Your task to perform on an android device: Go to privacy settings Image 0: 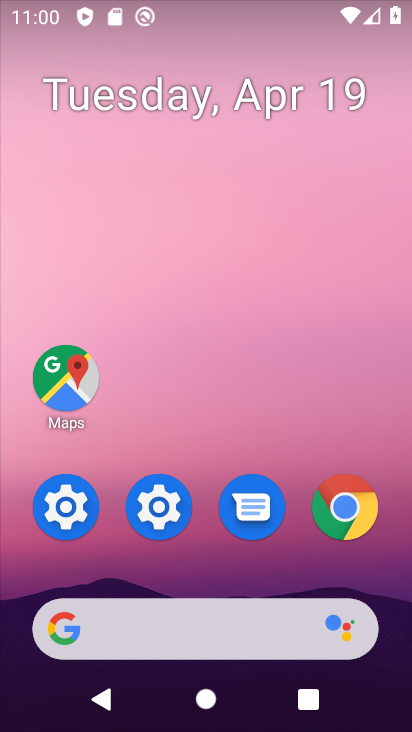
Step 0: drag from (207, 670) to (128, 170)
Your task to perform on an android device: Go to privacy settings Image 1: 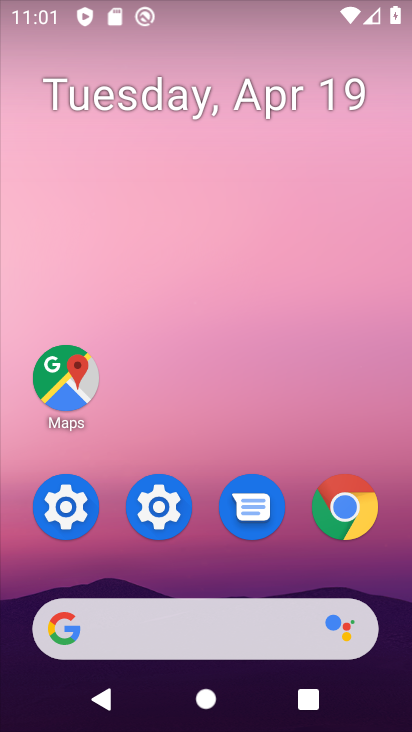
Step 1: drag from (231, 657) to (183, 197)
Your task to perform on an android device: Go to privacy settings Image 2: 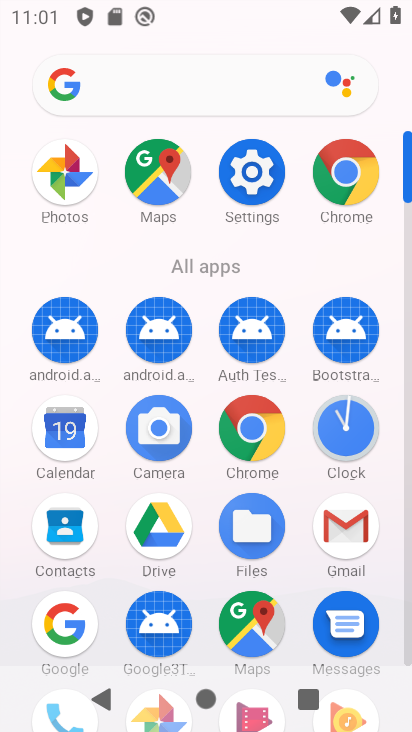
Step 2: click (251, 192)
Your task to perform on an android device: Go to privacy settings Image 3: 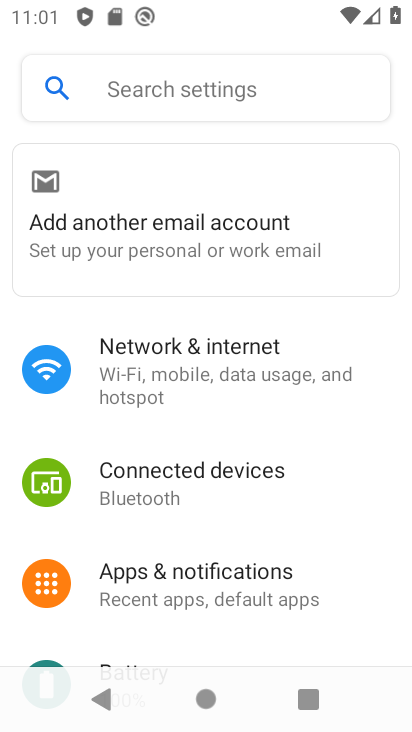
Step 3: drag from (264, 444) to (244, 228)
Your task to perform on an android device: Go to privacy settings Image 4: 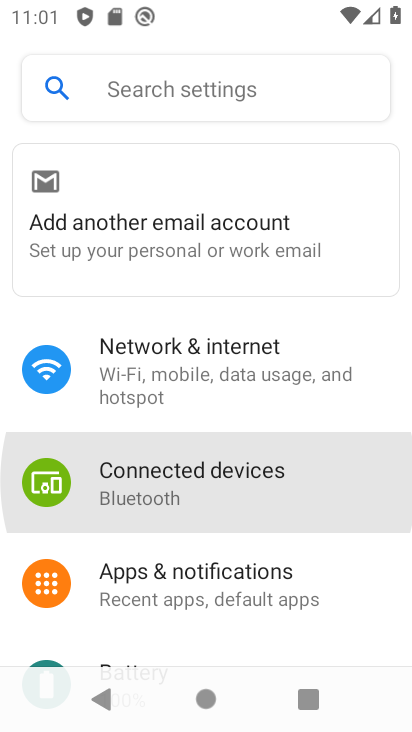
Step 4: drag from (193, 452) to (189, 225)
Your task to perform on an android device: Go to privacy settings Image 5: 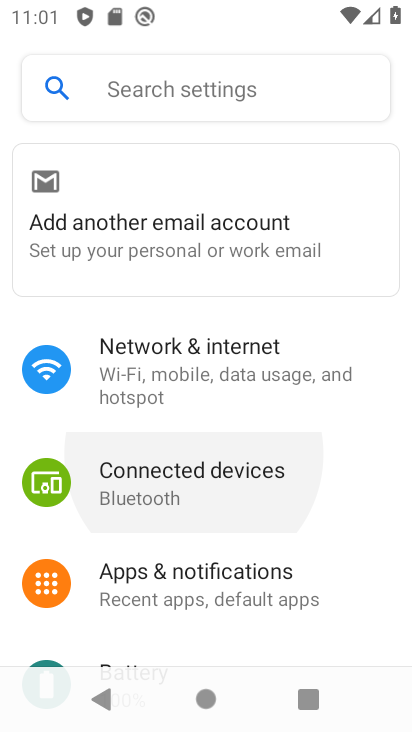
Step 5: drag from (246, 525) to (220, 316)
Your task to perform on an android device: Go to privacy settings Image 6: 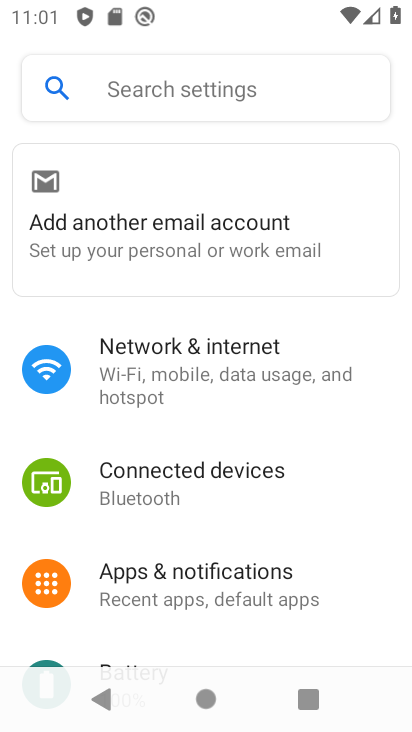
Step 6: drag from (283, 554) to (252, 226)
Your task to perform on an android device: Go to privacy settings Image 7: 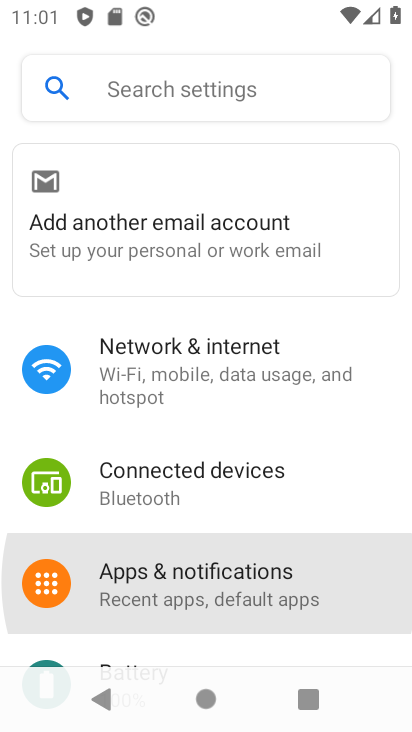
Step 7: drag from (272, 414) to (221, 148)
Your task to perform on an android device: Go to privacy settings Image 8: 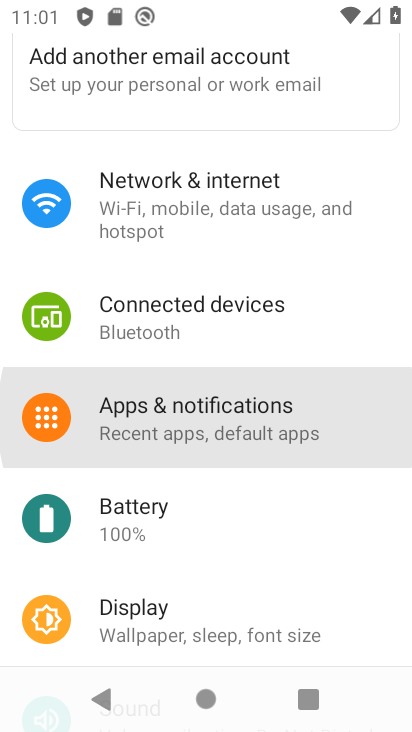
Step 8: drag from (160, 383) to (137, 115)
Your task to perform on an android device: Go to privacy settings Image 9: 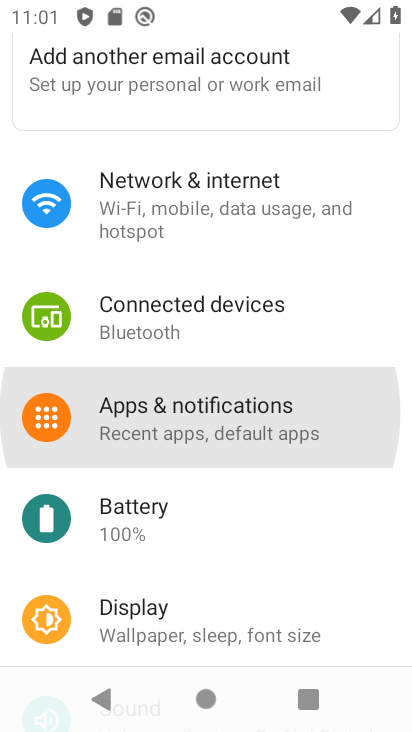
Step 9: drag from (199, 459) to (183, 125)
Your task to perform on an android device: Go to privacy settings Image 10: 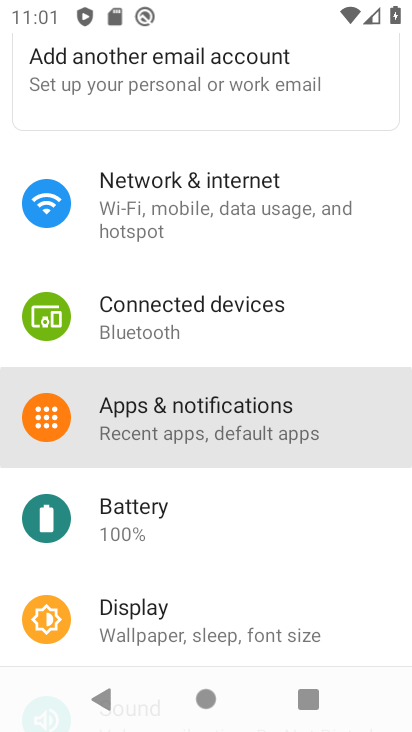
Step 10: drag from (228, 351) to (228, 130)
Your task to perform on an android device: Go to privacy settings Image 11: 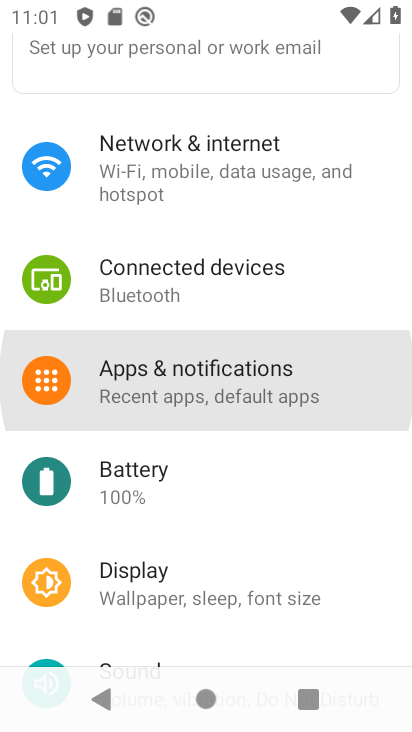
Step 11: drag from (260, 354) to (86, 208)
Your task to perform on an android device: Go to privacy settings Image 12: 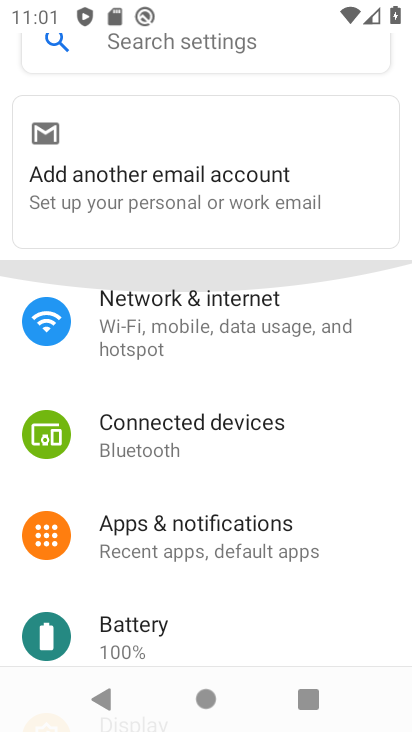
Step 12: drag from (38, 520) to (98, 250)
Your task to perform on an android device: Go to privacy settings Image 13: 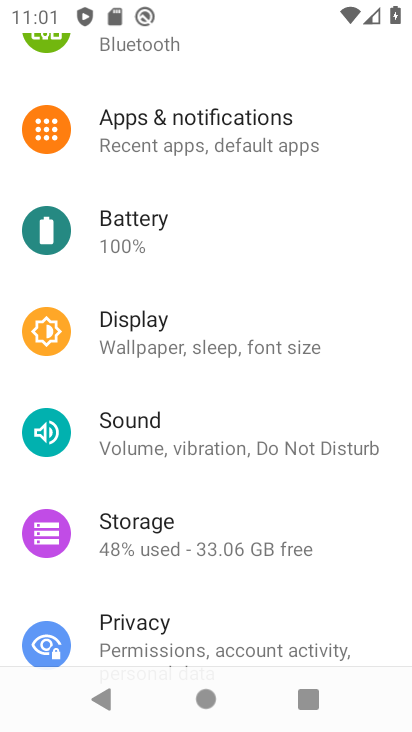
Step 13: click (220, 333)
Your task to perform on an android device: Go to privacy settings Image 14: 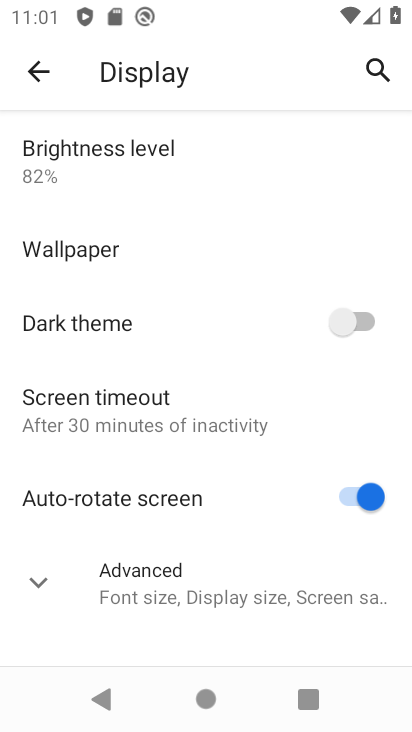
Step 14: click (38, 74)
Your task to perform on an android device: Go to privacy settings Image 15: 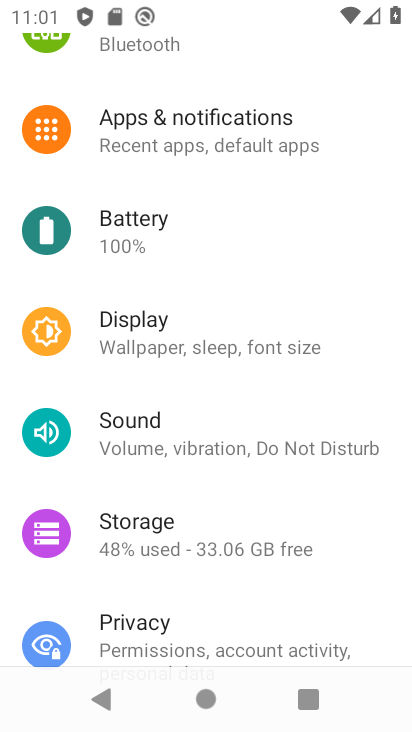
Step 15: click (132, 623)
Your task to perform on an android device: Go to privacy settings Image 16: 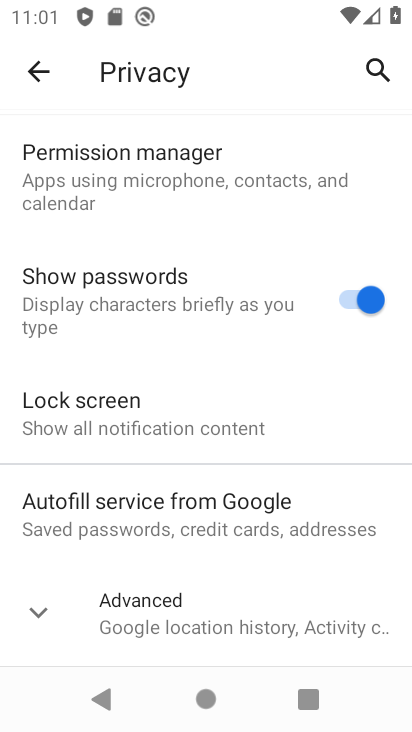
Step 16: task complete